Your task to perform on an android device: turn pop-ups off in chrome Image 0: 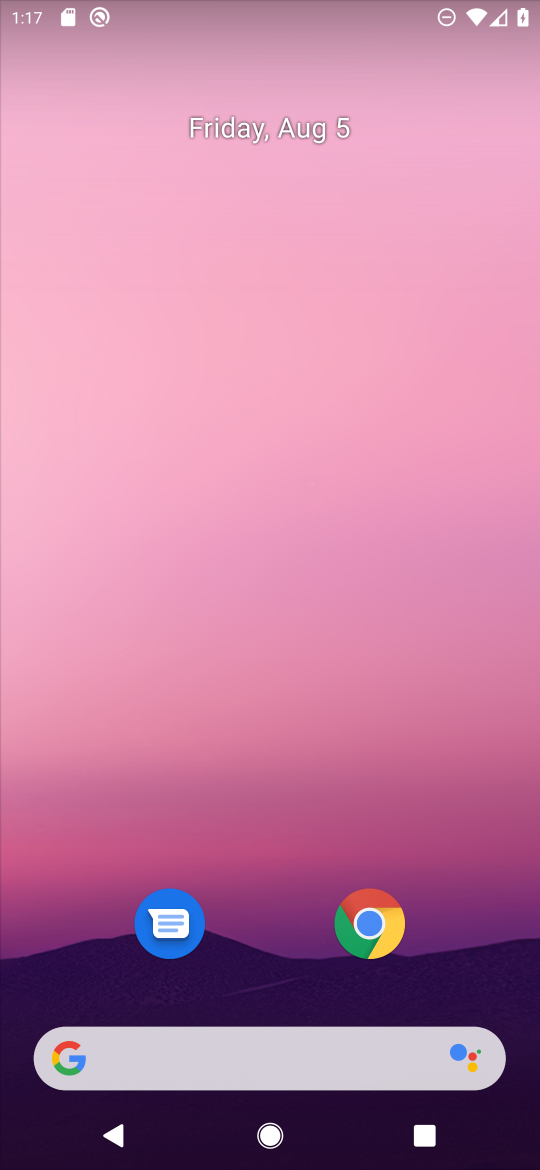
Step 0: click (359, 952)
Your task to perform on an android device: turn pop-ups off in chrome Image 1: 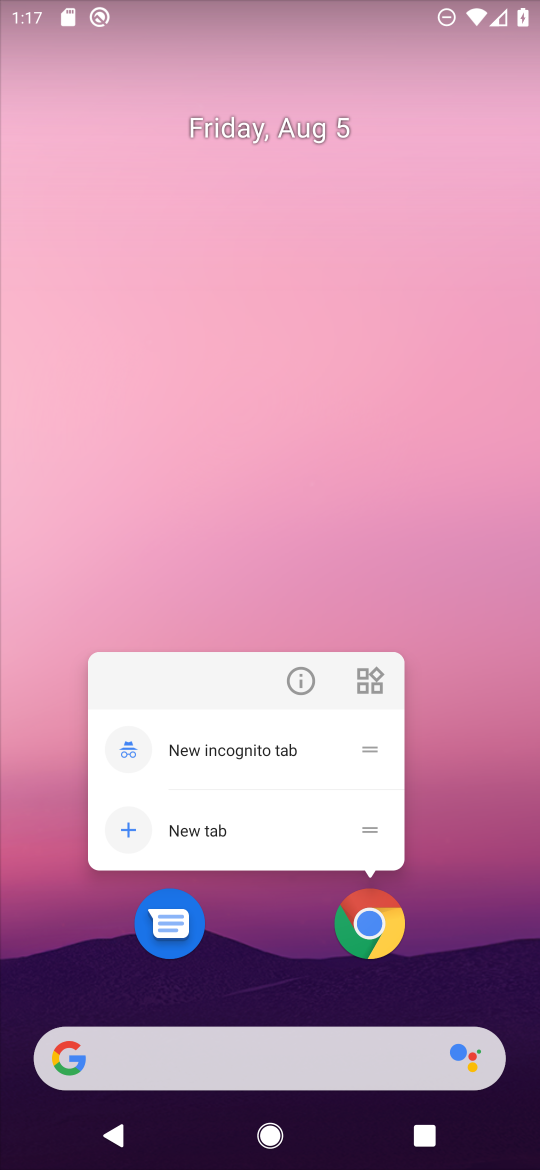
Step 1: click (253, 957)
Your task to perform on an android device: turn pop-ups off in chrome Image 2: 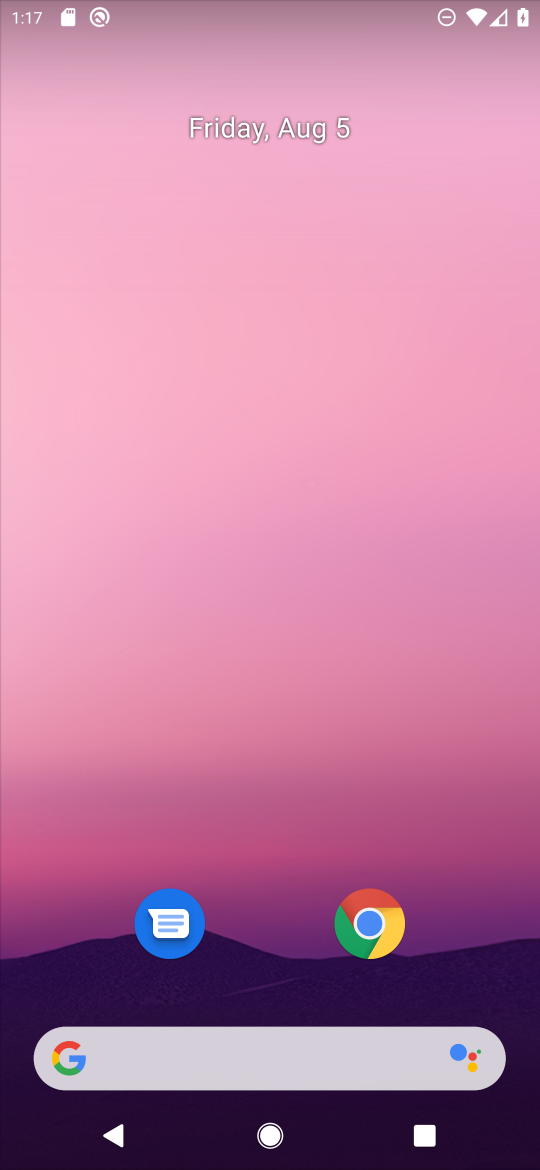
Step 2: click (374, 939)
Your task to perform on an android device: turn pop-ups off in chrome Image 3: 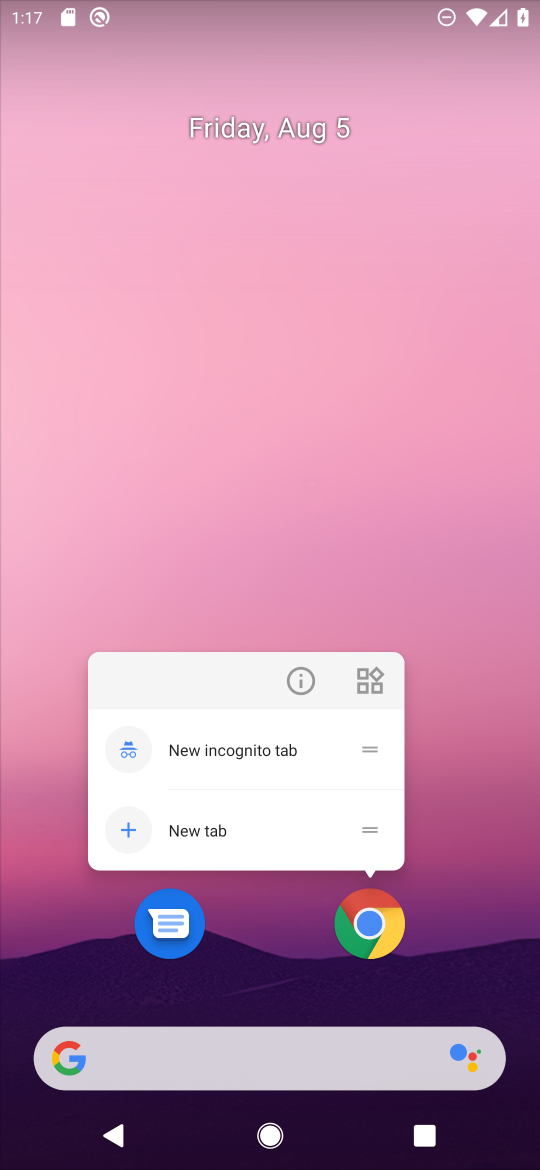
Step 3: click (385, 923)
Your task to perform on an android device: turn pop-ups off in chrome Image 4: 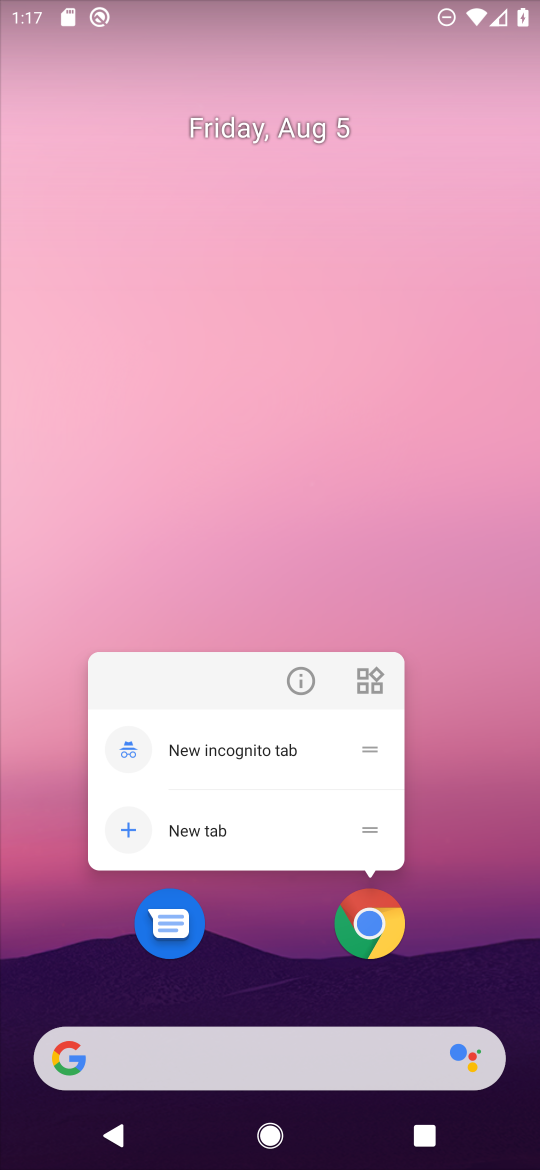
Step 4: click (378, 928)
Your task to perform on an android device: turn pop-ups off in chrome Image 5: 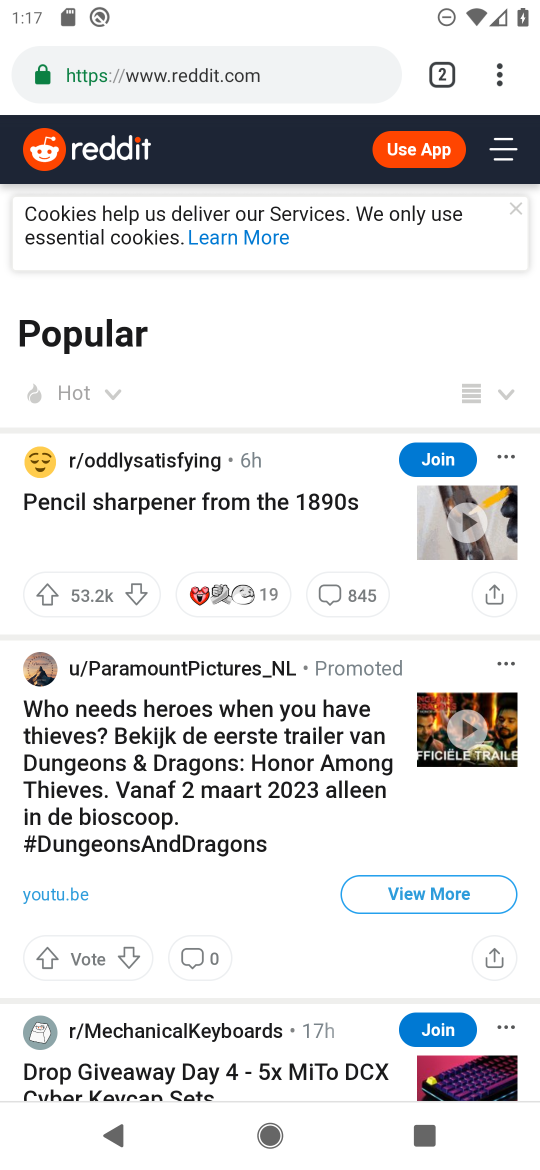
Step 5: drag from (497, 77) to (195, 889)
Your task to perform on an android device: turn pop-ups off in chrome Image 6: 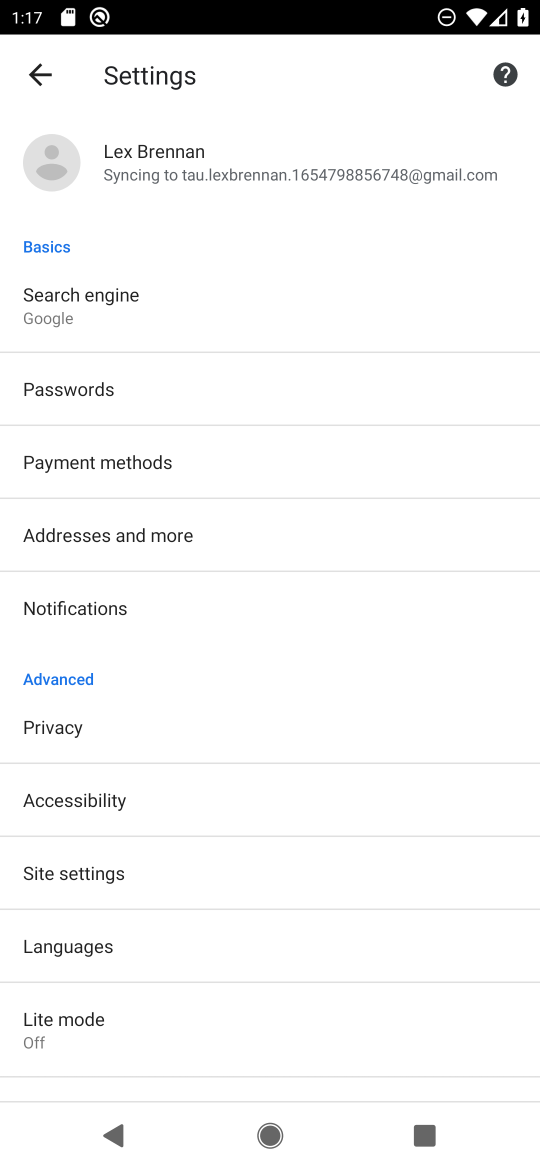
Step 6: click (54, 859)
Your task to perform on an android device: turn pop-ups off in chrome Image 7: 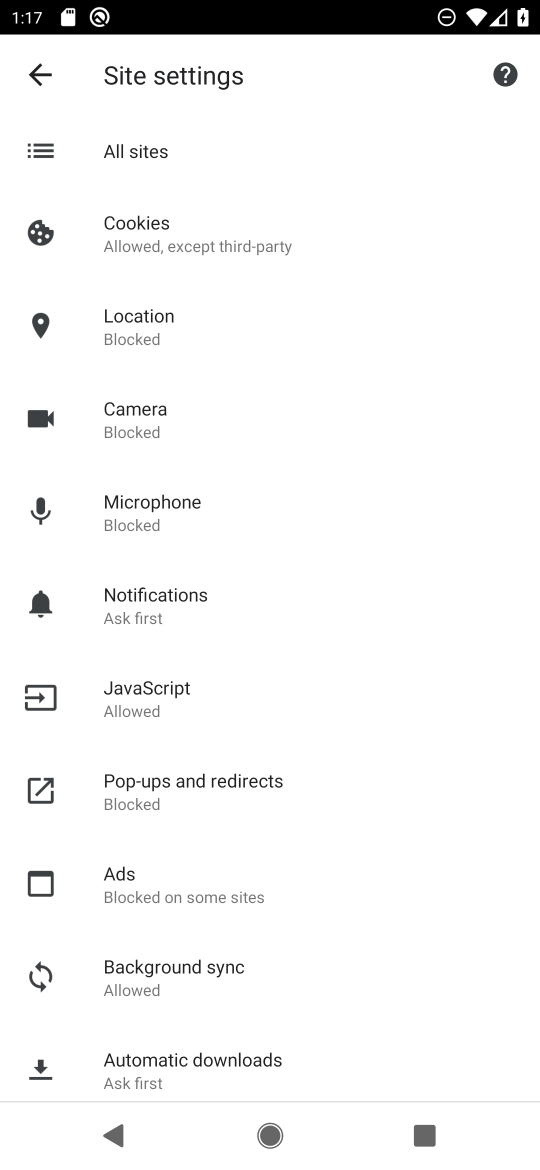
Step 7: click (135, 809)
Your task to perform on an android device: turn pop-ups off in chrome Image 8: 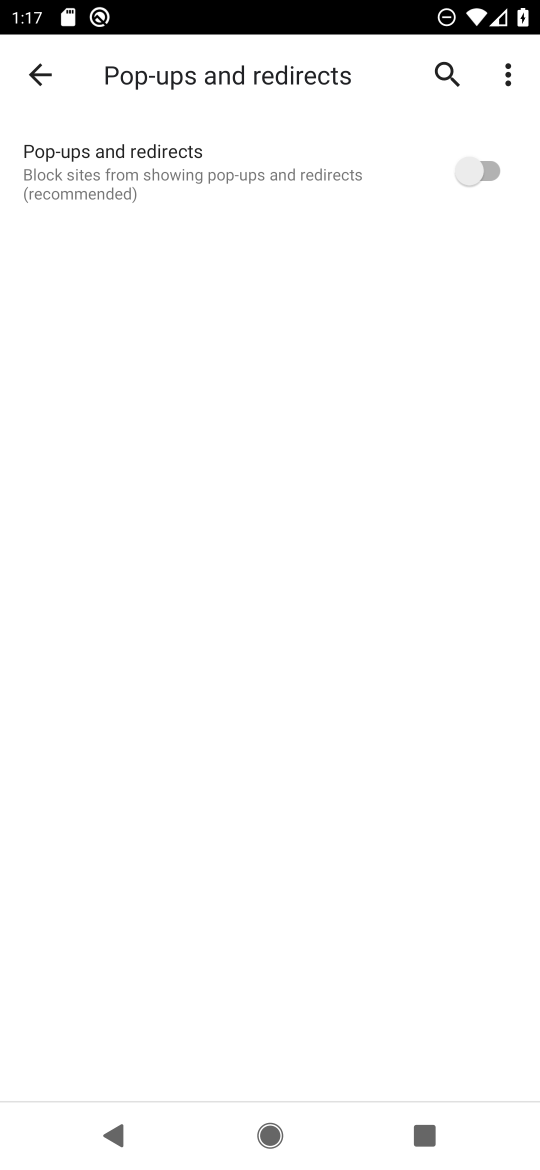
Step 8: task complete